Your task to perform on an android device: open app "Lyft - Rideshare, Bikes, Scooters & Transit" (install if not already installed) Image 0: 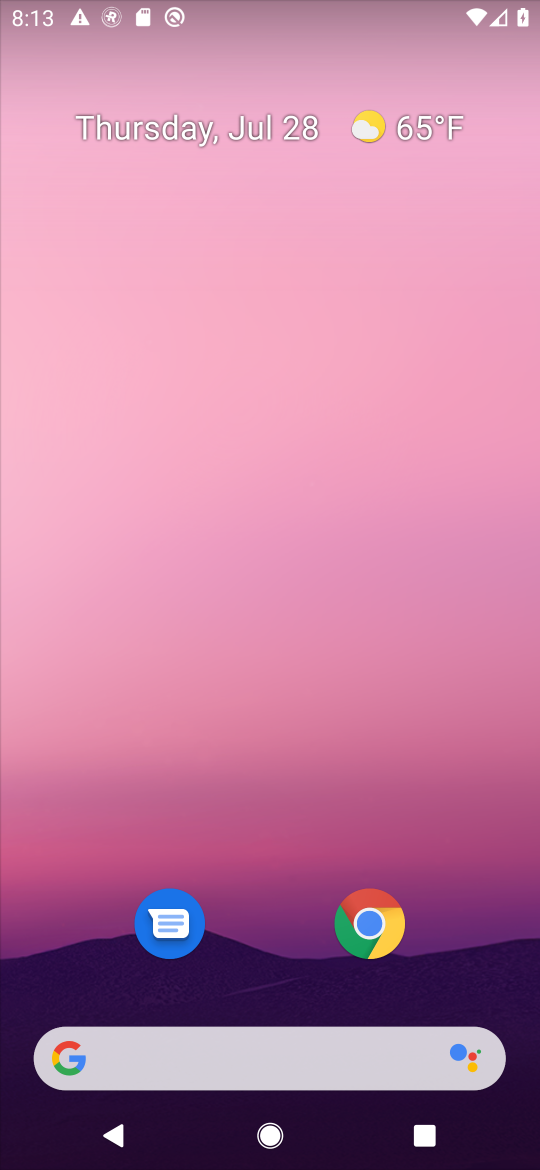
Step 0: drag from (359, 350) to (347, 23)
Your task to perform on an android device: open app "Lyft - Rideshare, Bikes, Scooters & Transit" (install if not already installed) Image 1: 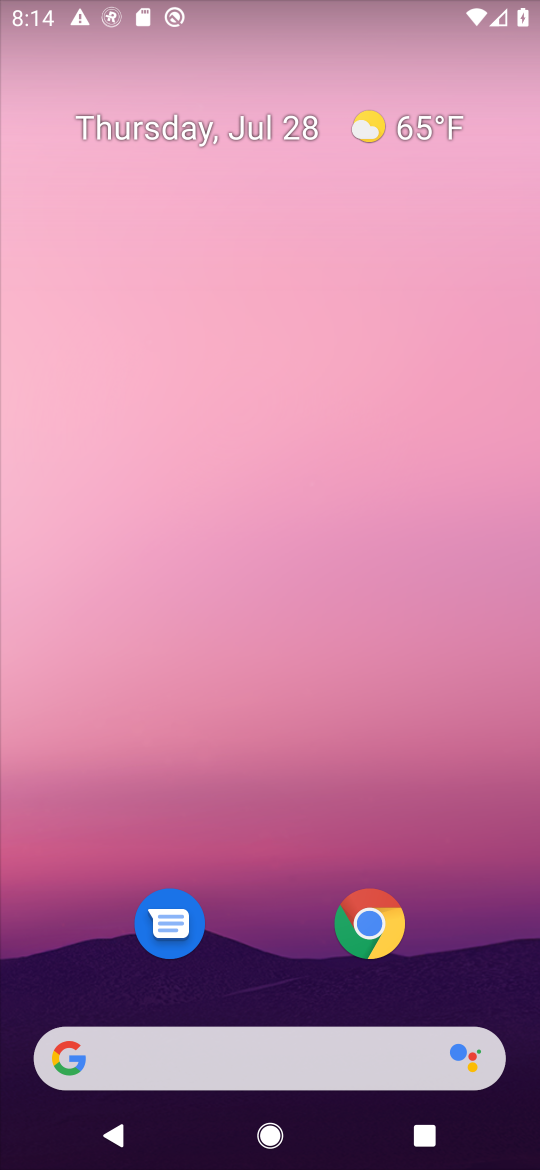
Step 1: drag from (495, 936) to (448, 15)
Your task to perform on an android device: open app "Lyft - Rideshare, Bikes, Scooters & Transit" (install if not already installed) Image 2: 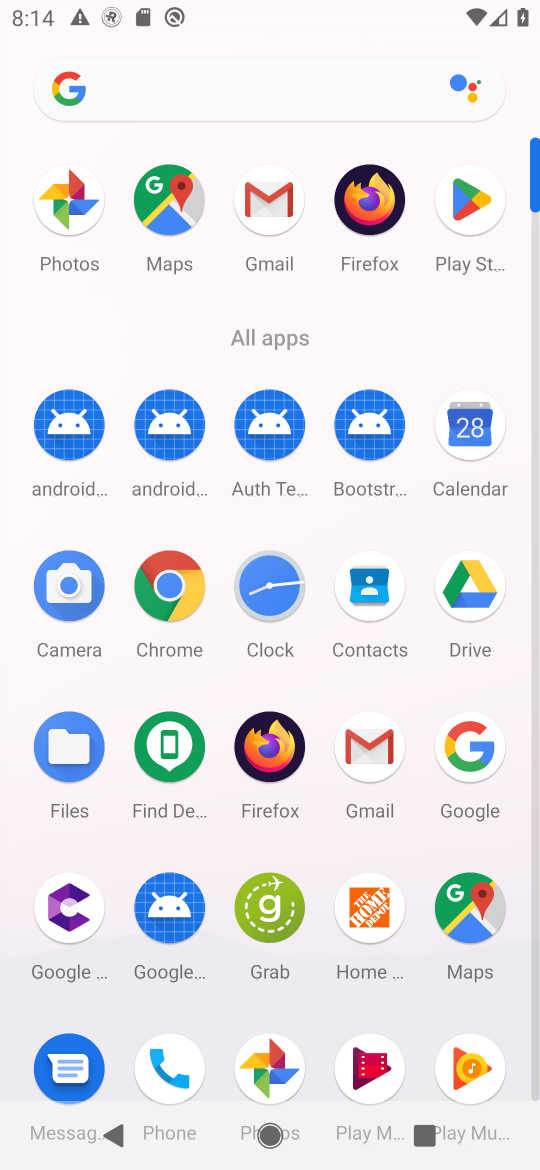
Step 2: click (459, 206)
Your task to perform on an android device: open app "Lyft - Rideshare, Bikes, Scooters & Transit" (install if not already installed) Image 3: 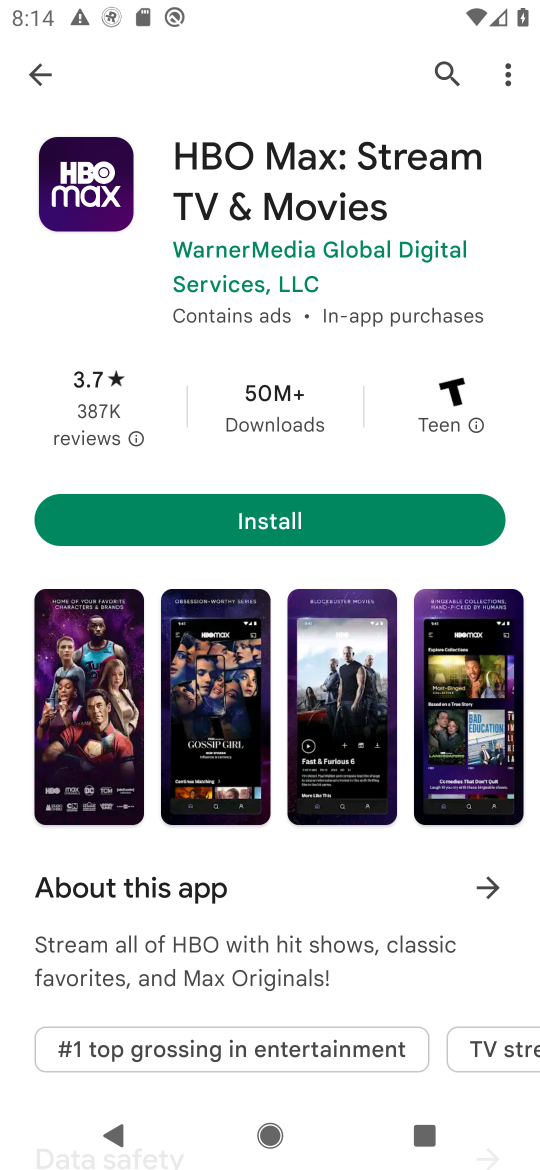
Step 3: click (420, 85)
Your task to perform on an android device: open app "Lyft - Rideshare, Bikes, Scooters & Transit" (install if not already installed) Image 4: 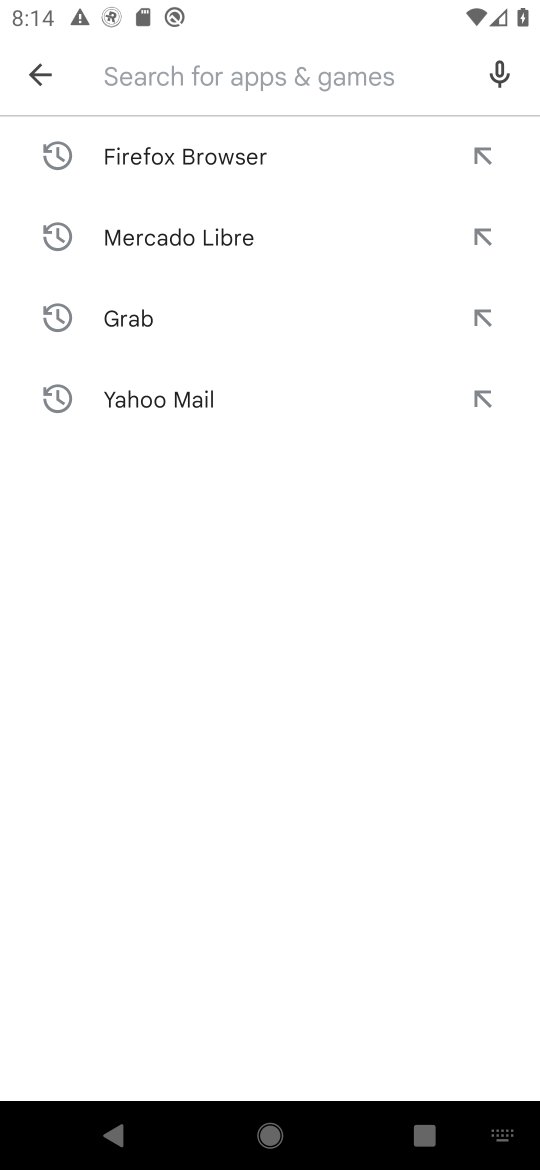
Step 4: type "Lyft"
Your task to perform on an android device: open app "Lyft - Rideshare, Bikes, Scooters & Transit" (install if not already installed) Image 5: 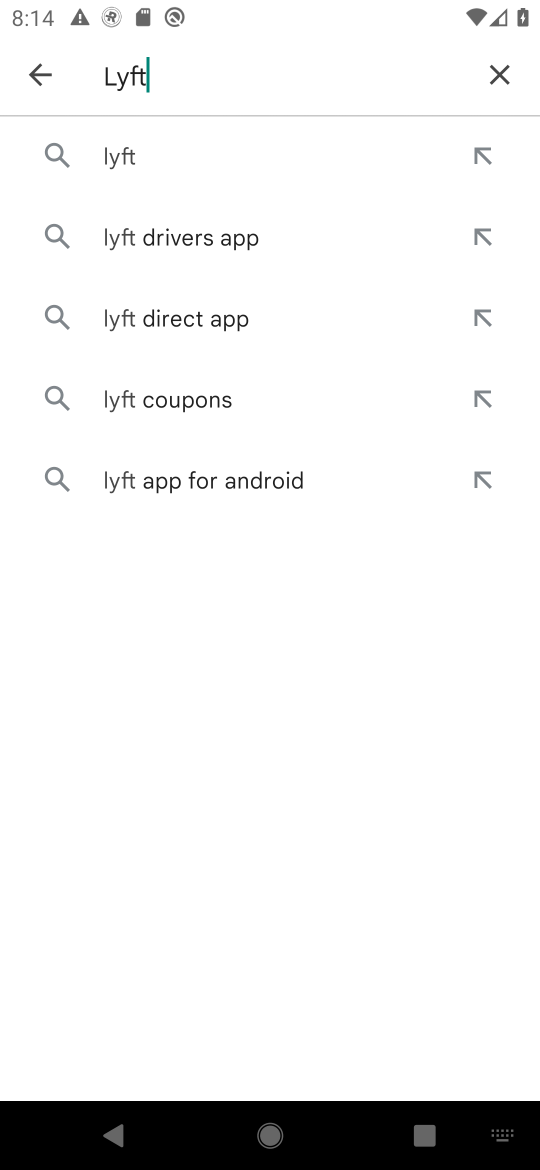
Step 5: press enter
Your task to perform on an android device: open app "Lyft - Rideshare, Bikes, Scooters & Transit" (install if not already installed) Image 6: 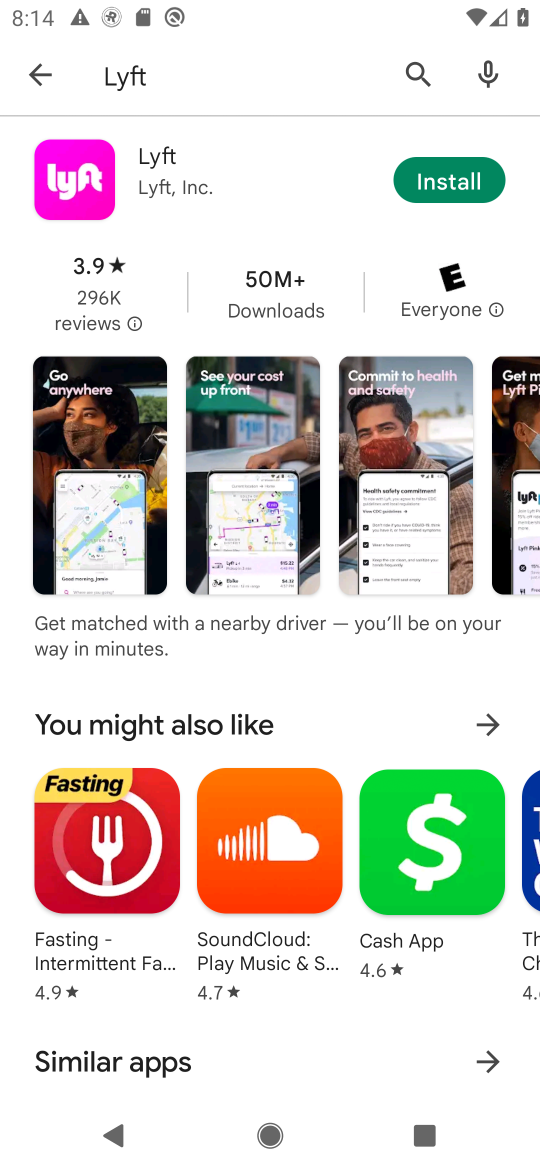
Step 6: click (473, 173)
Your task to perform on an android device: open app "Lyft - Rideshare, Bikes, Scooters & Transit" (install if not already installed) Image 7: 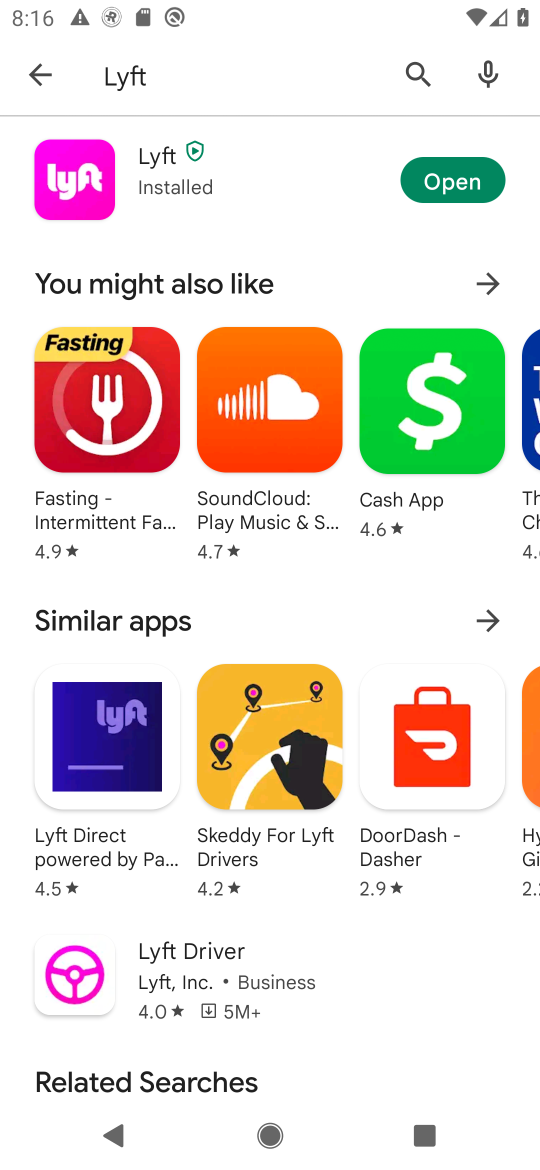
Step 7: click (444, 179)
Your task to perform on an android device: open app "Lyft - Rideshare, Bikes, Scooters & Transit" (install if not already installed) Image 8: 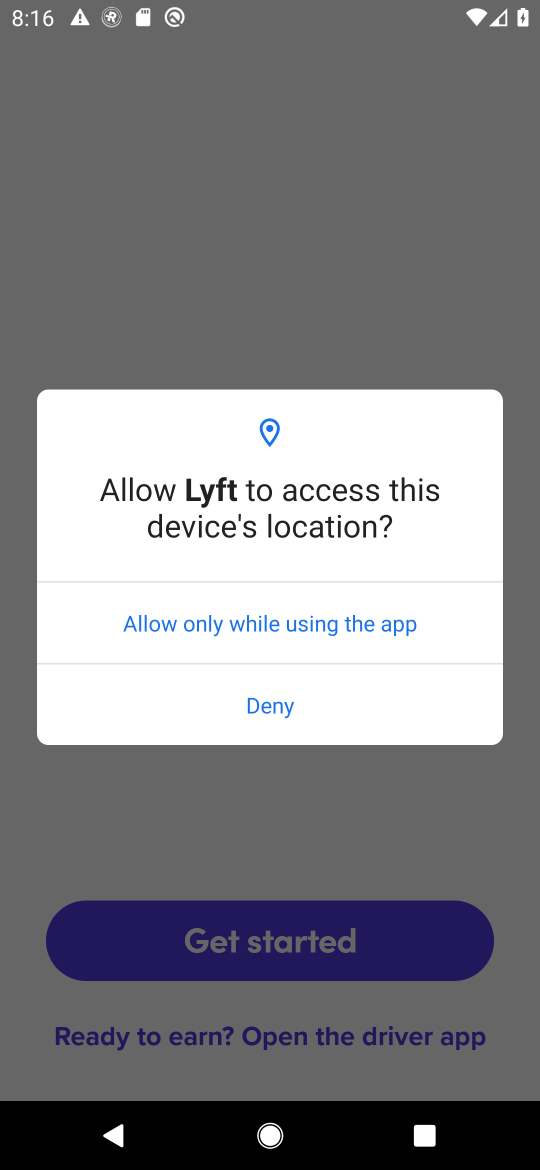
Step 8: task complete